Your task to perform on an android device: star an email in the gmail app Image 0: 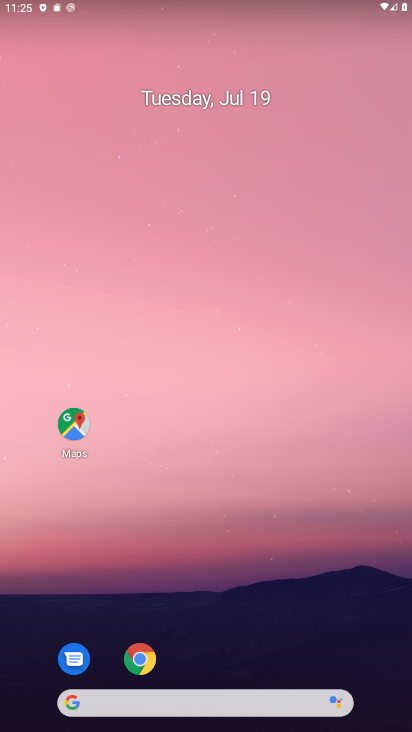
Step 0: press home button
Your task to perform on an android device: star an email in the gmail app Image 1: 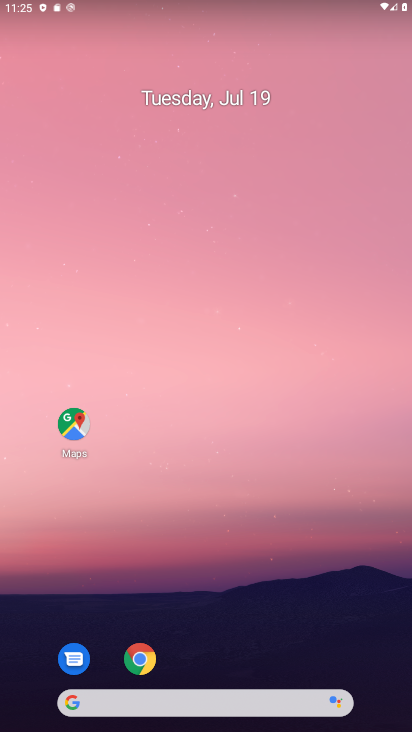
Step 1: drag from (215, 680) to (256, 0)
Your task to perform on an android device: star an email in the gmail app Image 2: 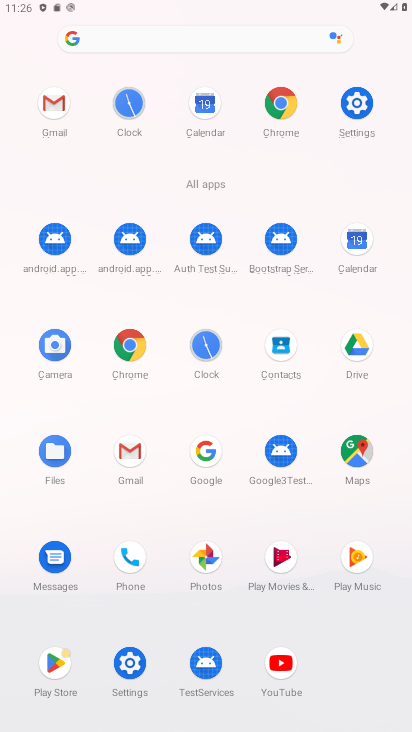
Step 2: click (125, 443)
Your task to perform on an android device: star an email in the gmail app Image 3: 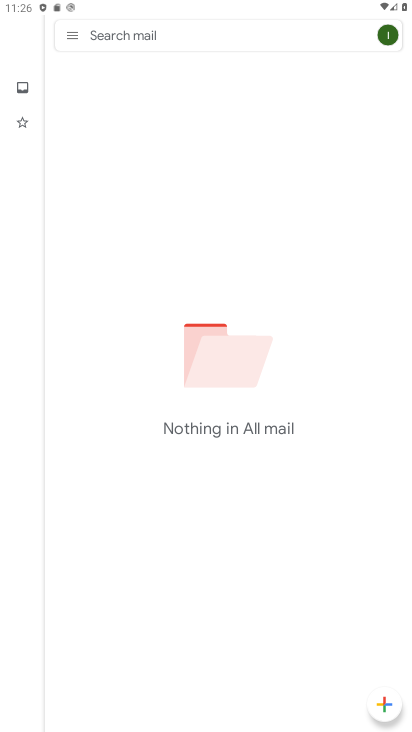
Step 3: task complete